Your task to perform on an android device: delete browsing data in the chrome app Image 0: 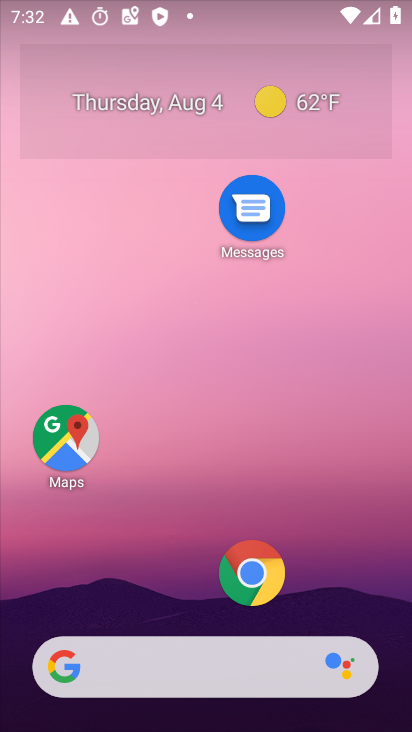
Step 0: press home button
Your task to perform on an android device: delete browsing data in the chrome app Image 1: 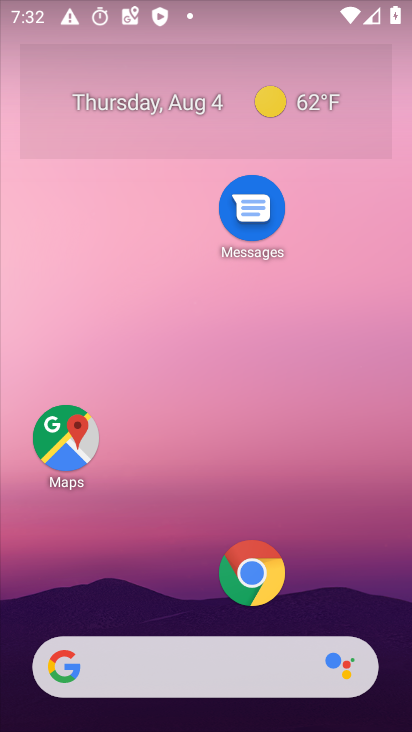
Step 1: drag from (137, 625) to (182, 8)
Your task to perform on an android device: delete browsing data in the chrome app Image 2: 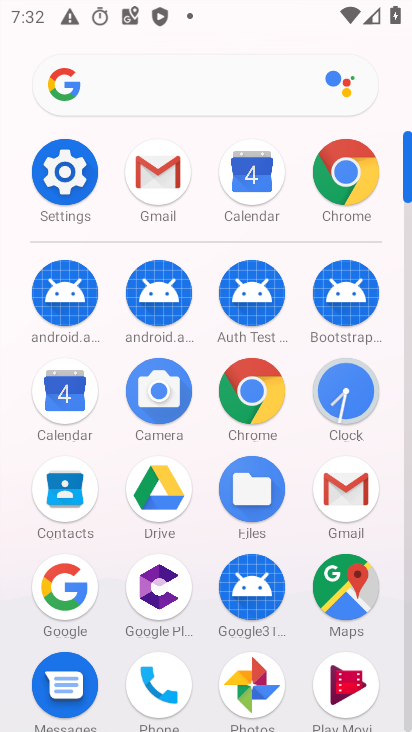
Step 2: click (349, 173)
Your task to perform on an android device: delete browsing data in the chrome app Image 3: 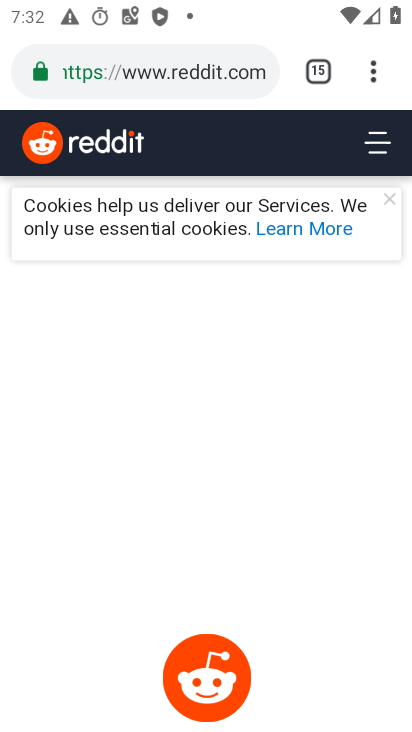
Step 3: drag from (370, 72) to (153, 579)
Your task to perform on an android device: delete browsing data in the chrome app Image 4: 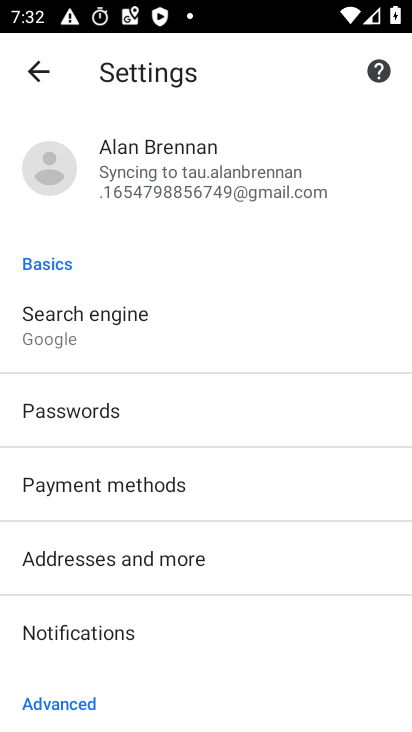
Step 4: drag from (194, 661) to (197, 279)
Your task to perform on an android device: delete browsing data in the chrome app Image 5: 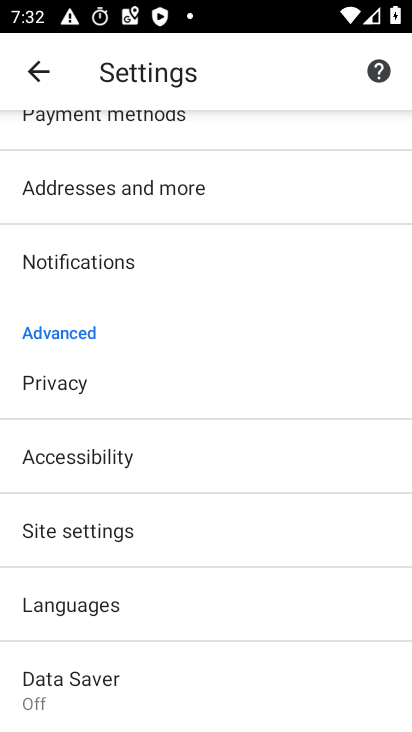
Step 5: click (66, 385)
Your task to perform on an android device: delete browsing data in the chrome app Image 6: 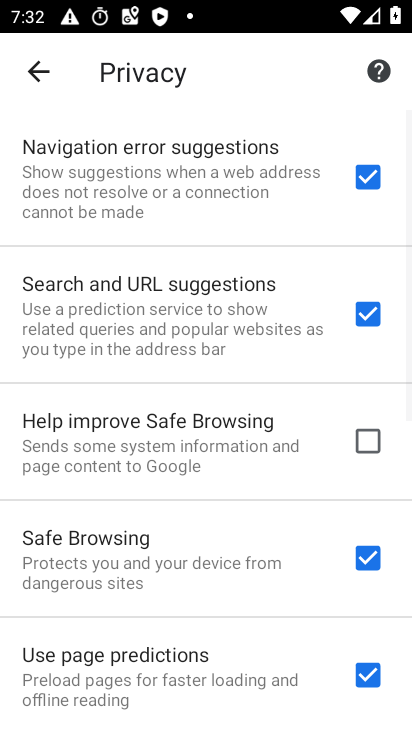
Step 6: drag from (296, 632) to (289, 242)
Your task to perform on an android device: delete browsing data in the chrome app Image 7: 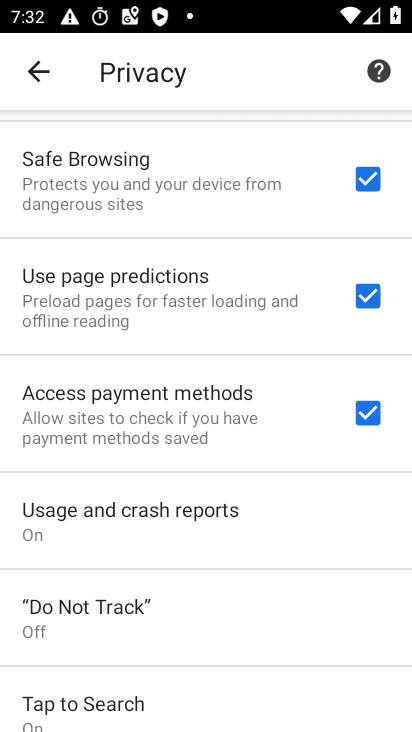
Step 7: drag from (209, 652) to (230, 298)
Your task to perform on an android device: delete browsing data in the chrome app Image 8: 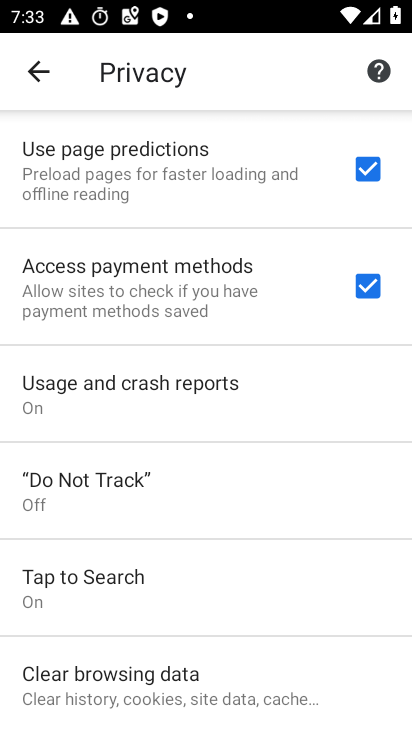
Step 8: click (96, 683)
Your task to perform on an android device: delete browsing data in the chrome app Image 9: 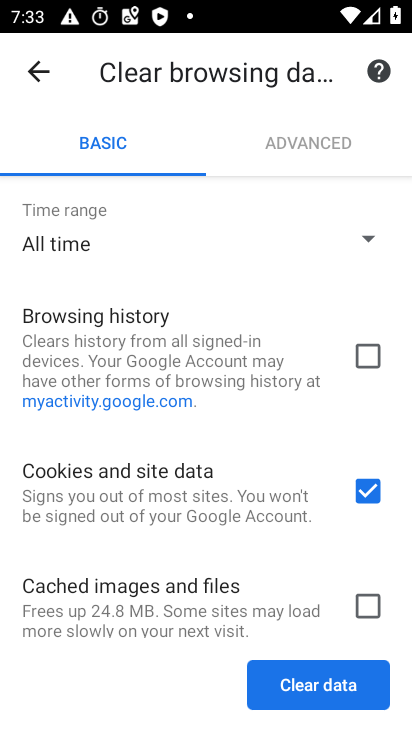
Step 9: click (373, 360)
Your task to perform on an android device: delete browsing data in the chrome app Image 10: 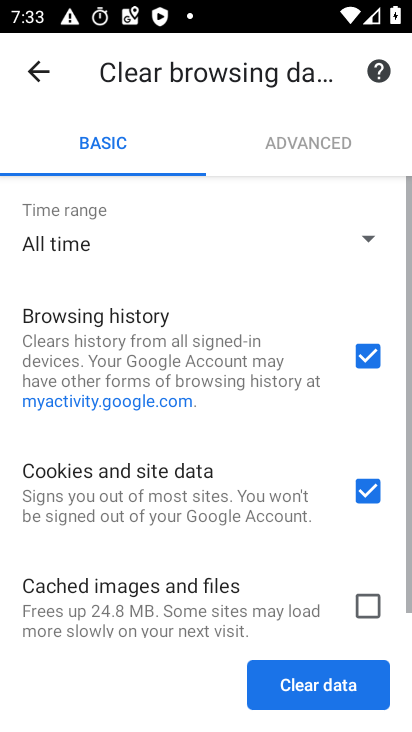
Step 10: click (364, 609)
Your task to perform on an android device: delete browsing data in the chrome app Image 11: 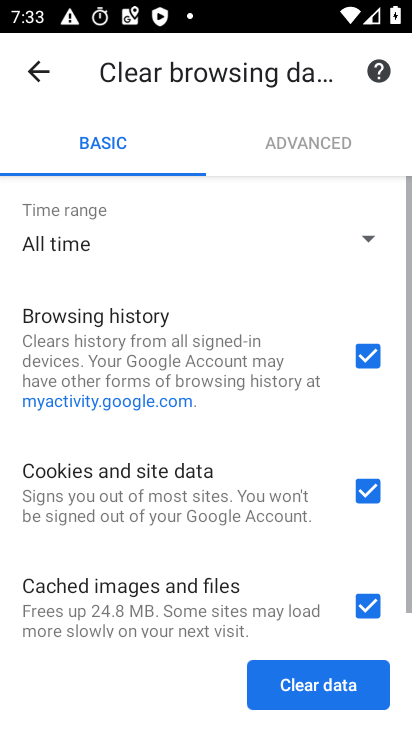
Step 11: click (273, 693)
Your task to perform on an android device: delete browsing data in the chrome app Image 12: 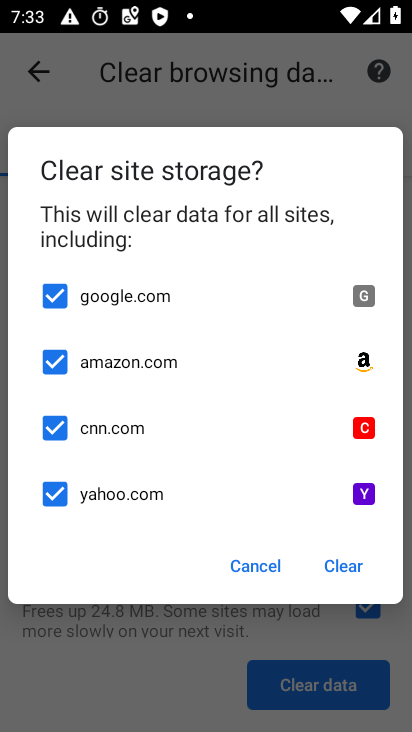
Step 12: click (354, 561)
Your task to perform on an android device: delete browsing data in the chrome app Image 13: 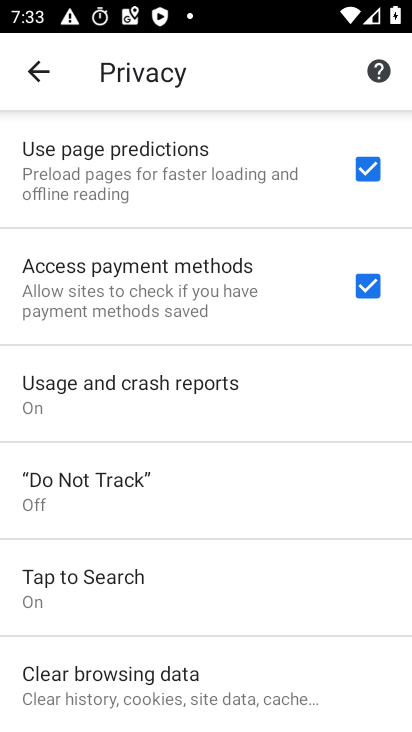
Step 13: task complete